Your task to perform on an android device: turn on data saver in the chrome app Image 0: 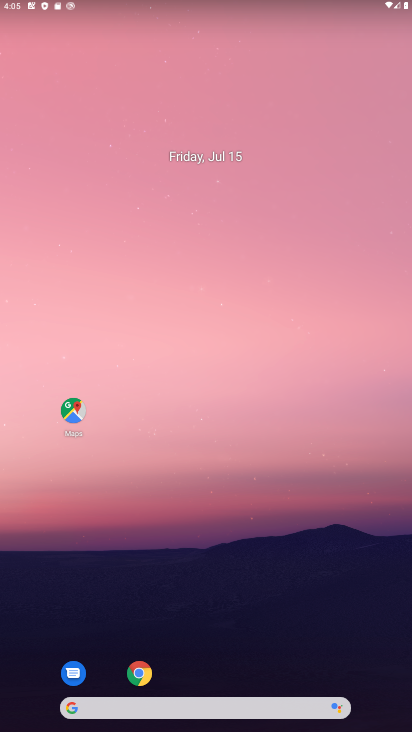
Step 0: drag from (217, 630) to (264, 170)
Your task to perform on an android device: turn on data saver in the chrome app Image 1: 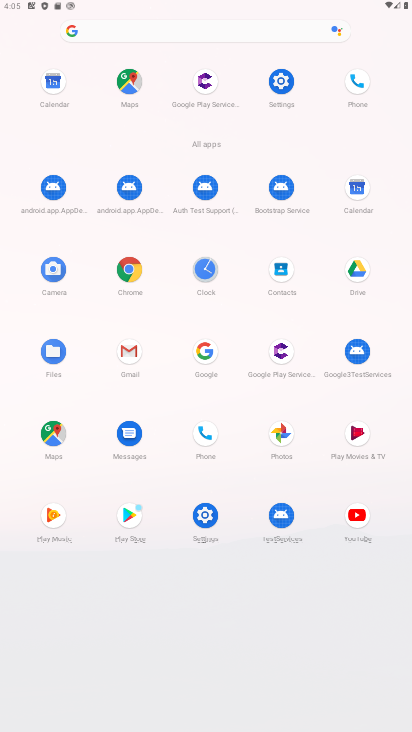
Step 1: click (125, 260)
Your task to perform on an android device: turn on data saver in the chrome app Image 2: 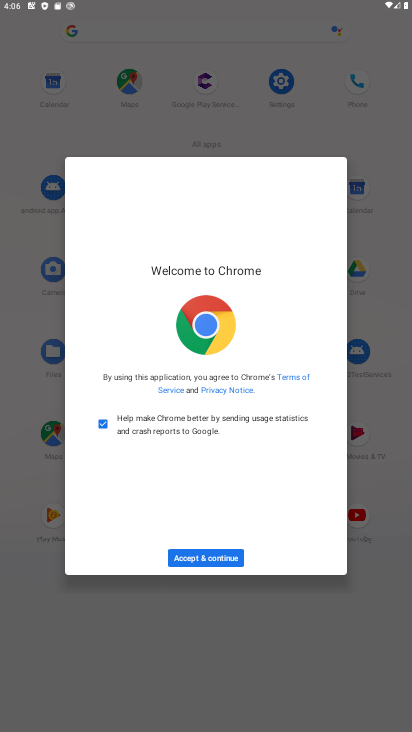
Step 2: click (205, 559)
Your task to perform on an android device: turn on data saver in the chrome app Image 3: 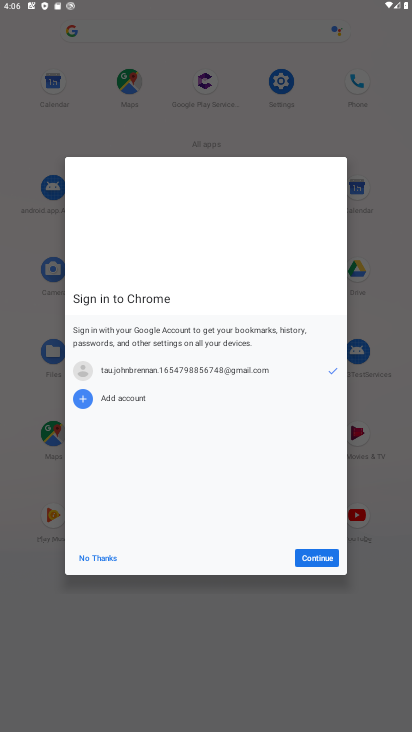
Step 3: click (300, 554)
Your task to perform on an android device: turn on data saver in the chrome app Image 4: 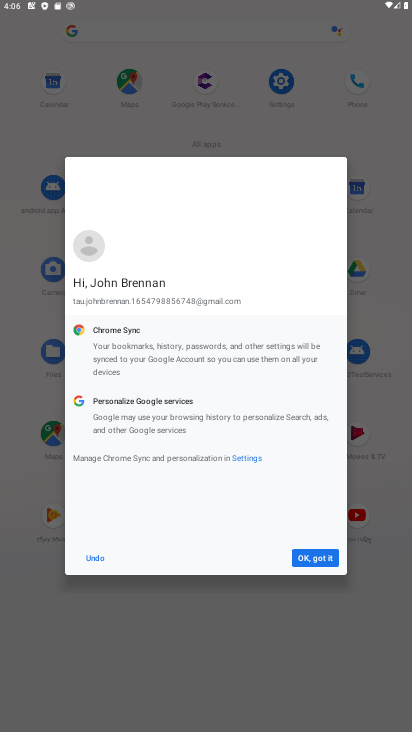
Step 4: click (319, 562)
Your task to perform on an android device: turn on data saver in the chrome app Image 5: 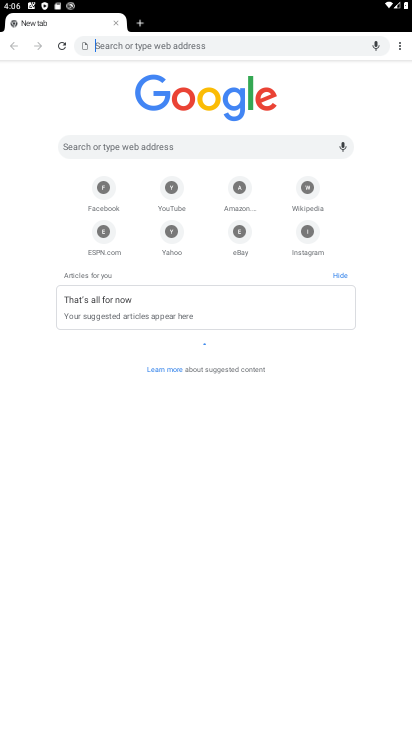
Step 5: click (403, 57)
Your task to perform on an android device: turn on data saver in the chrome app Image 6: 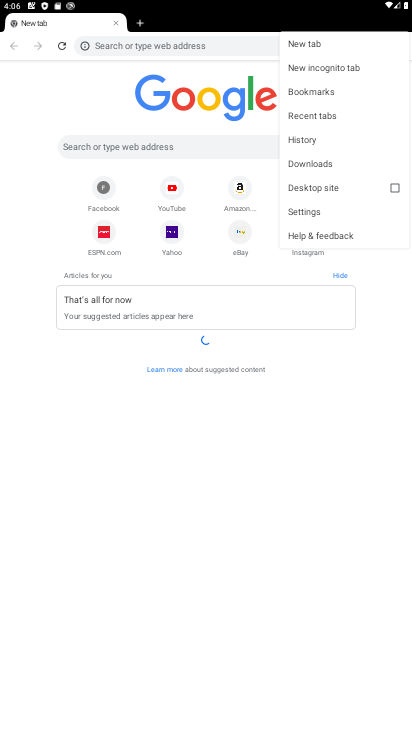
Step 6: click (399, 45)
Your task to perform on an android device: turn on data saver in the chrome app Image 7: 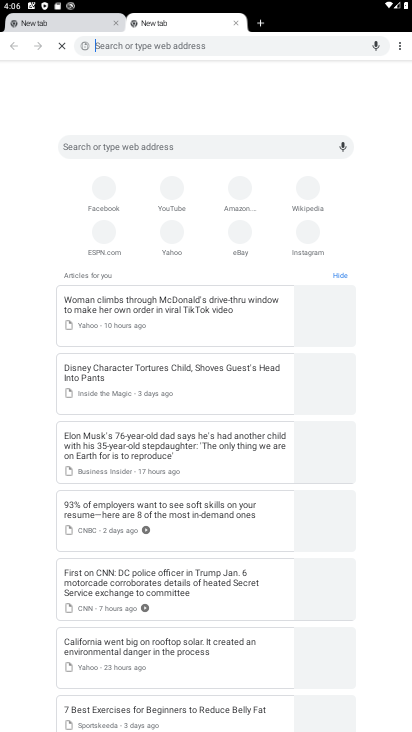
Step 7: click (399, 45)
Your task to perform on an android device: turn on data saver in the chrome app Image 8: 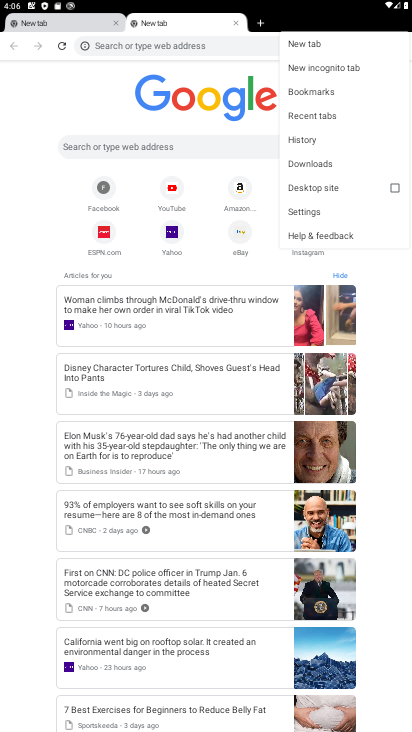
Step 8: click (314, 210)
Your task to perform on an android device: turn on data saver in the chrome app Image 9: 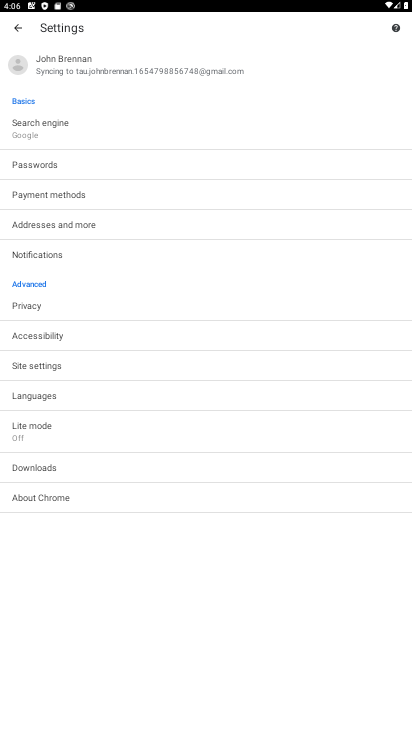
Step 9: click (69, 434)
Your task to perform on an android device: turn on data saver in the chrome app Image 10: 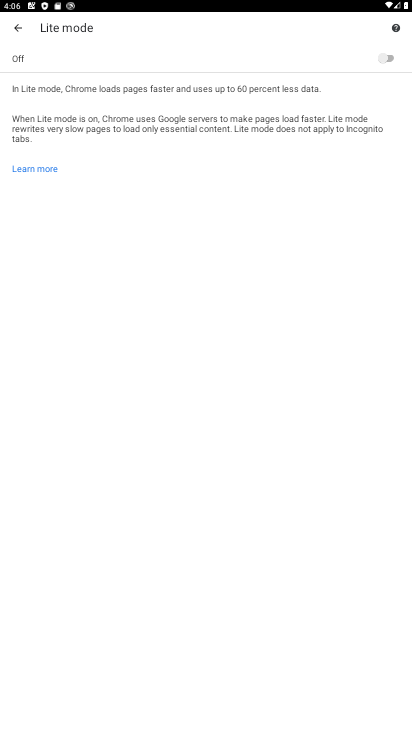
Step 10: click (395, 52)
Your task to perform on an android device: turn on data saver in the chrome app Image 11: 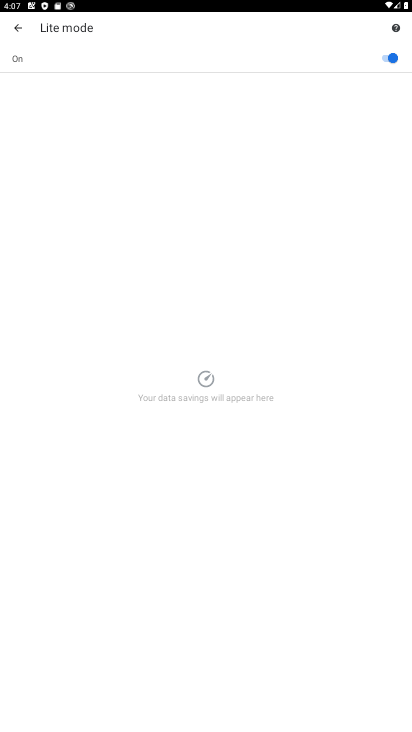
Step 11: task complete